Your task to perform on an android device: set the timer Image 0: 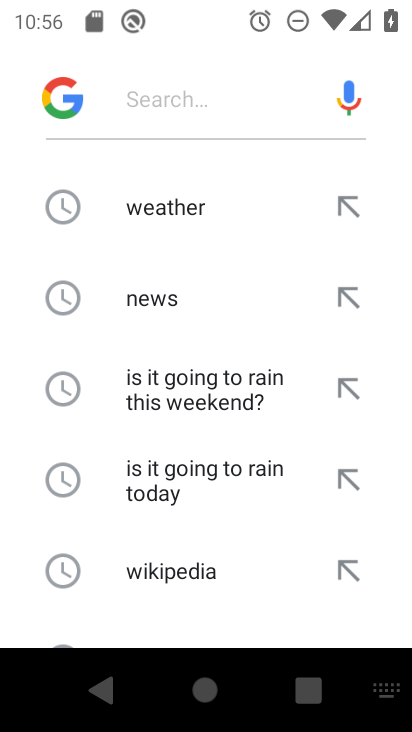
Step 0: press home button
Your task to perform on an android device: set the timer Image 1: 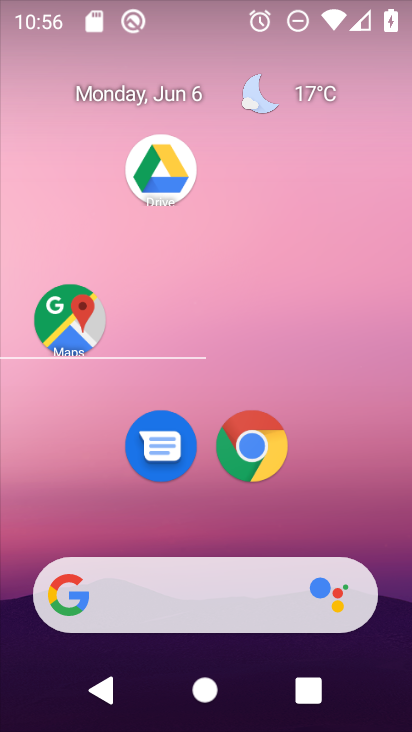
Step 1: drag from (242, 12) to (207, 8)
Your task to perform on an android device: set the timer Image 2: 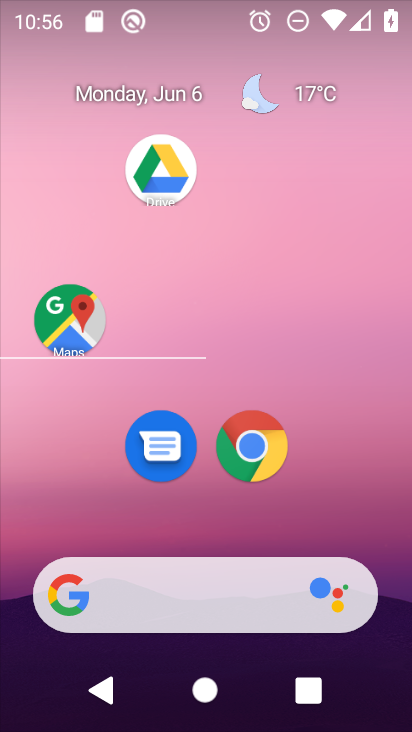
Step 2: drag from (272, 227) to (243, 35)
Your task to perform on an android device: set the timer Image 3: 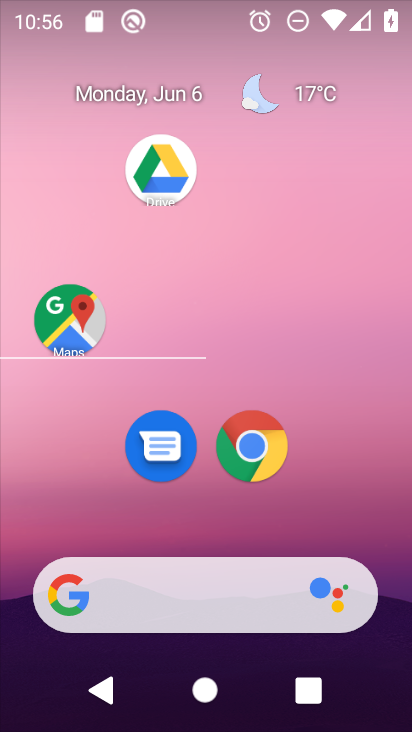
Step 3: drag from (201, 502) to (256, 13)
Your task to perform on an android device: set the timer Image 4: 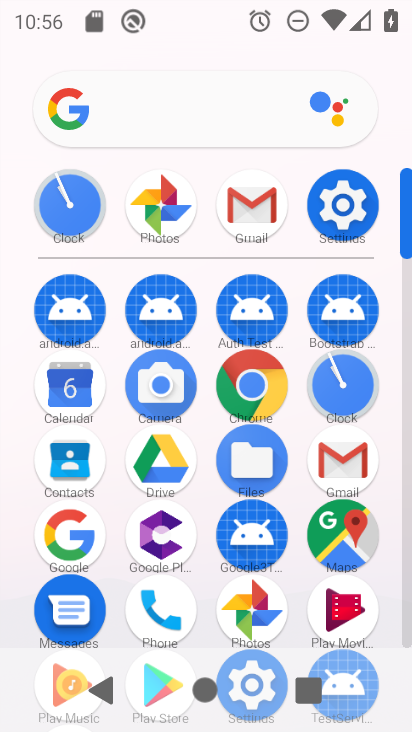
Step 4: click (67, 200)
Your task to perform on an android device: set the timer Image 5: 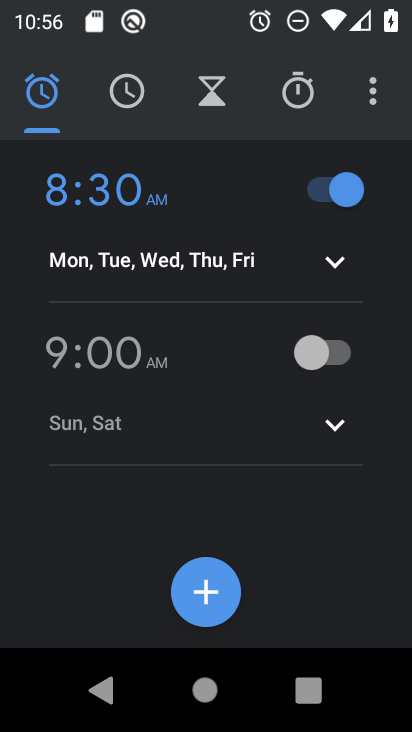
Step 5: click (310, 97)
Your task to perform on an android device: set the timer Image 6: 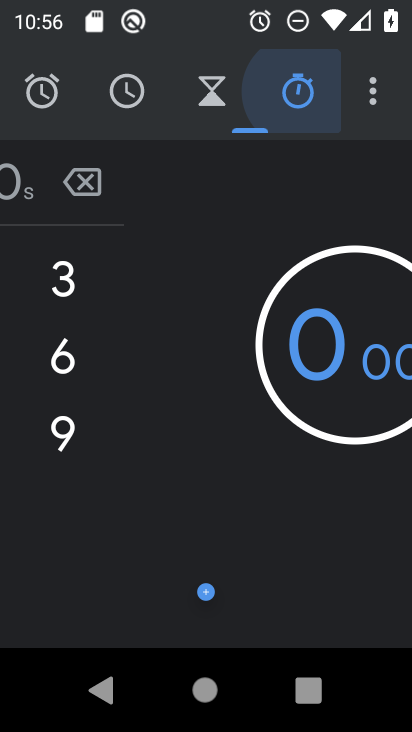
Step 6: click (239, 99)
Your task to perform on an android device: set the timer Image 7: 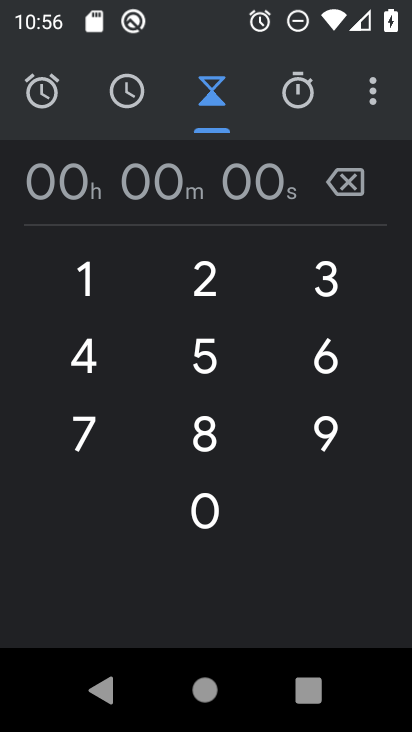
Step 7: click (211, 359)
Your task to perform on an android device: set the timer Image 8: 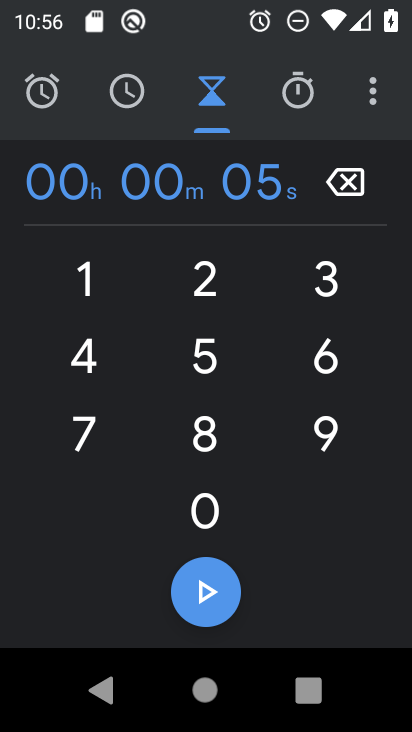
Step 8: click (223, 609)
Your task to perform on an android device: set the timer Image 9: 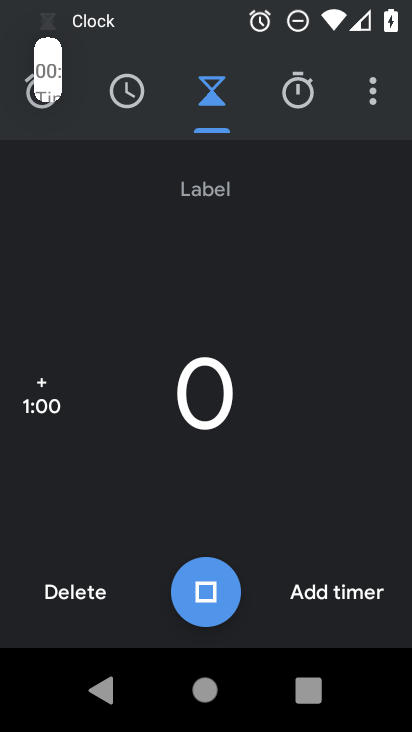
Step 9: task complete